Your task to perform on an android device: Open ESPN.com Image 0: 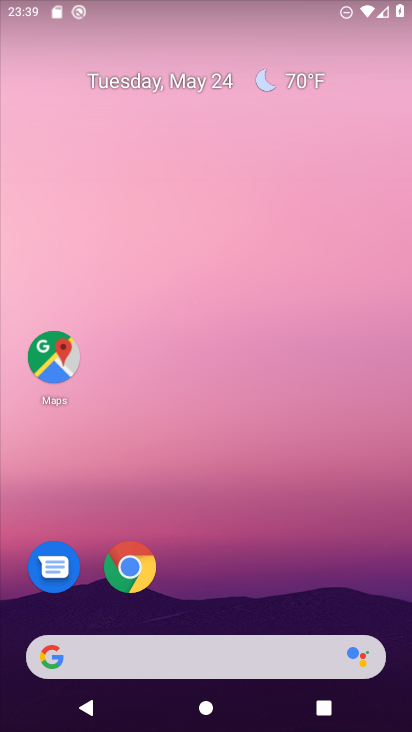
Step 0: click (144, 562)
Your task to perform on an android device: Open ESPN.com Image 1: 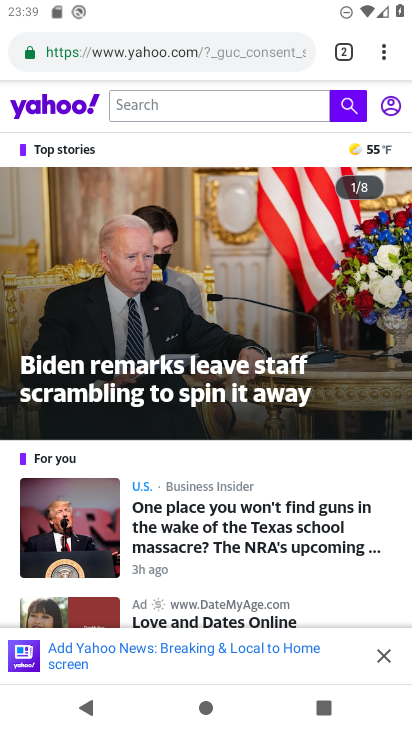
Step 1: click (346, 50)
Your task to perform on an android device: Open ESPN.com Image 2: 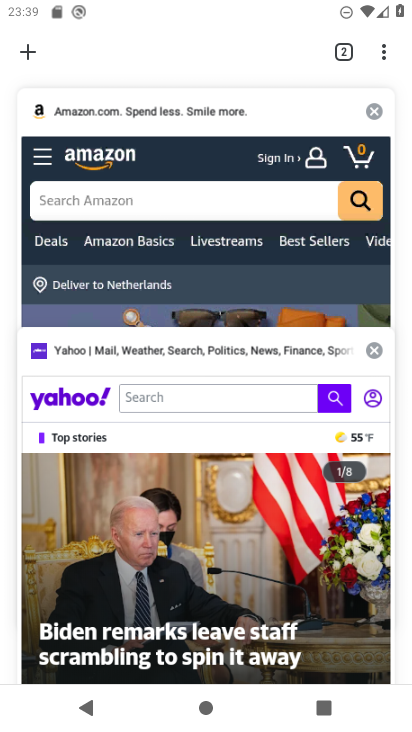
Step 2: click (20, 48)
Your task to perform on an android device: Open ESPN.com Image 3: 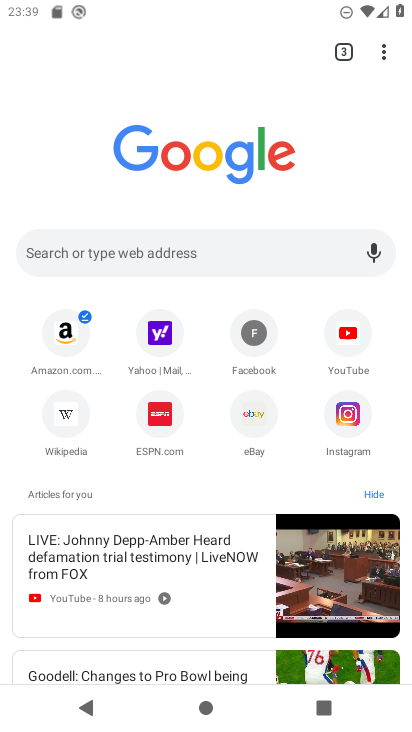
Step 3: click (163, 411)
Your task to perform on an android device: Open ESPN.com Image 4: 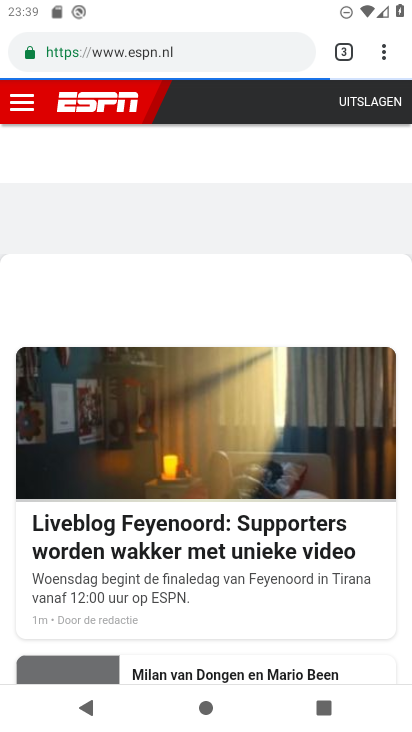
Step 4: task complete